Your task to perform on an android device: turn on the 12-hour format for clock Image 0: 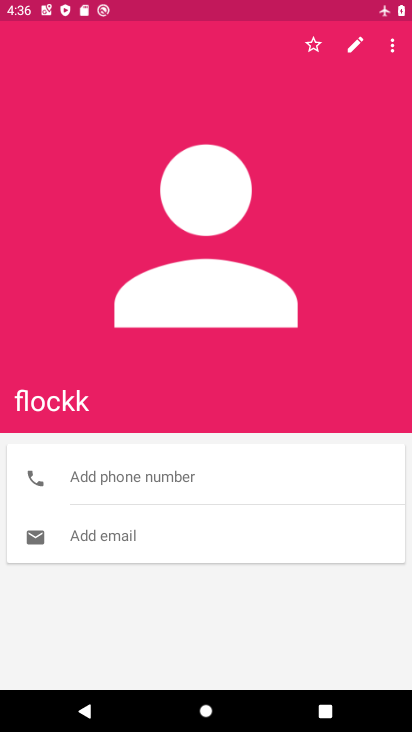
Step 0: press home button
Your task to perform on an android device: turn on the 12-hour format for clock Image 1: 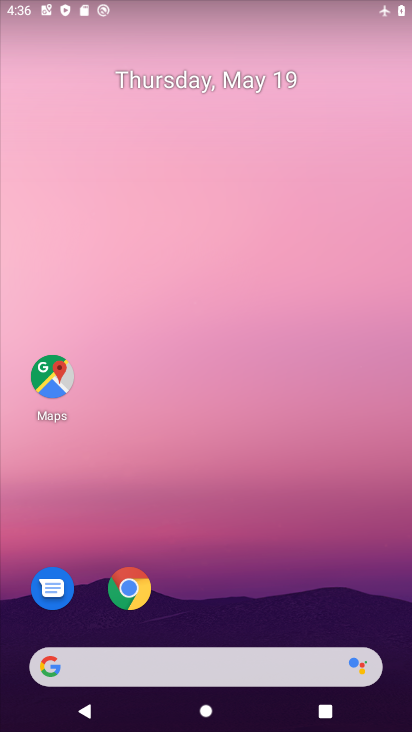
Step 1: drag from (237, 616) to (296, 73)
Your task to perform on an android device: turn on the 12-hour format for clock Image 2: 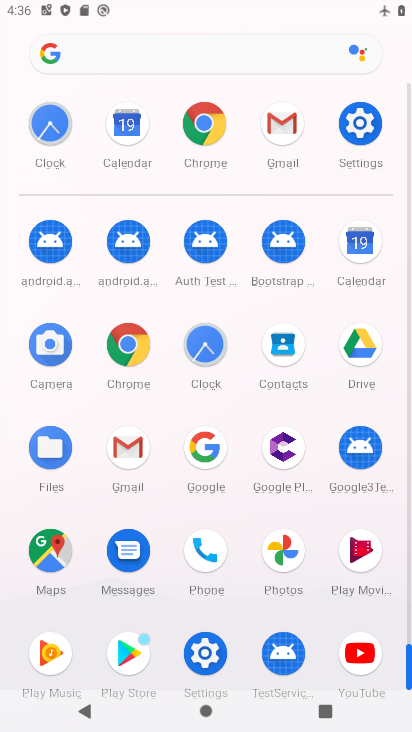
Step 2: click (365, 132)
Your task to perform on an android device: turn on the 12-hour format for clock Image 3: 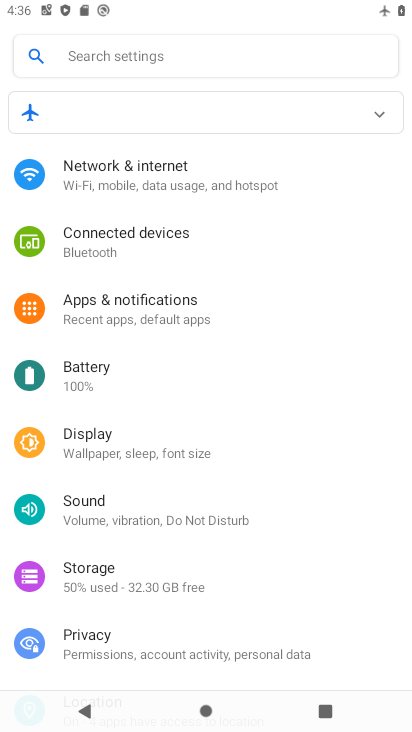
Step 3: drag from (216, 478) to (241, 176)
Your task to perform on an android device: turn on the 12-hour format for clock Image 4: 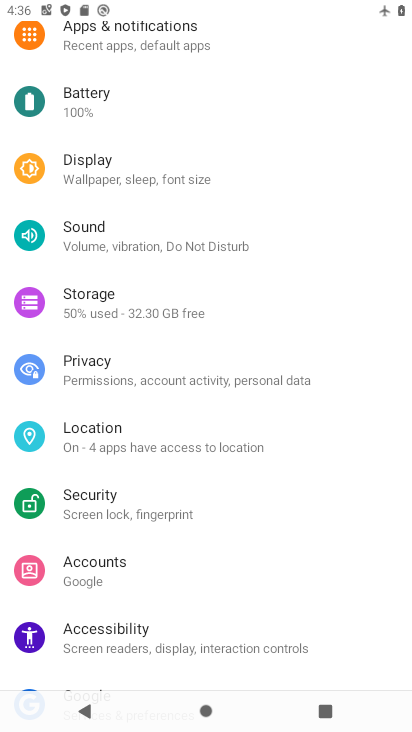
Step 4: drag from (158, 562) to (210, 246)
Your task to perform on an android device: turn on the 12-hour format for clock Image 5: 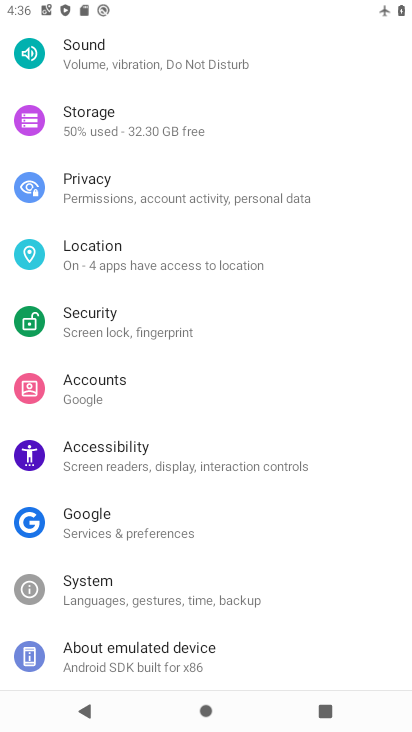
Step 5: click (134, 608)
Your task to perform on an android device: turn on the 12-hour format for clock Image 6: 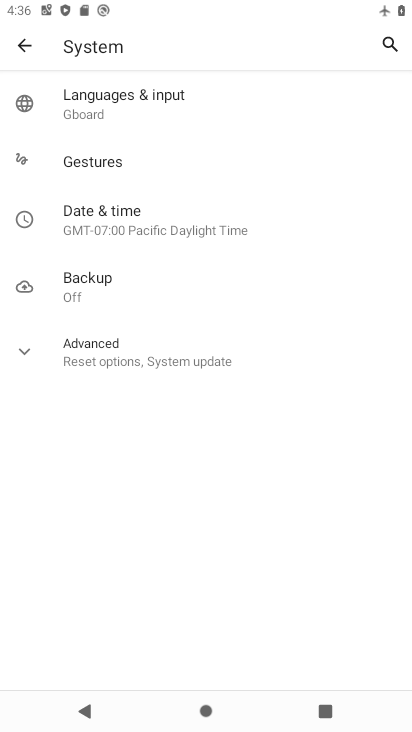
Step 6: click (119, 224)
Your task to perform on an android device: turn on the 12-hour format for clock Image 7: 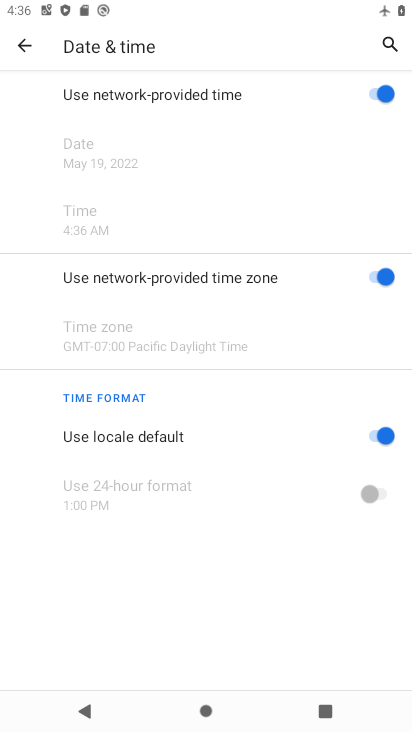
Step 7: task complete